Your task to perform on an android device: Open a new Chrome window Image 0: 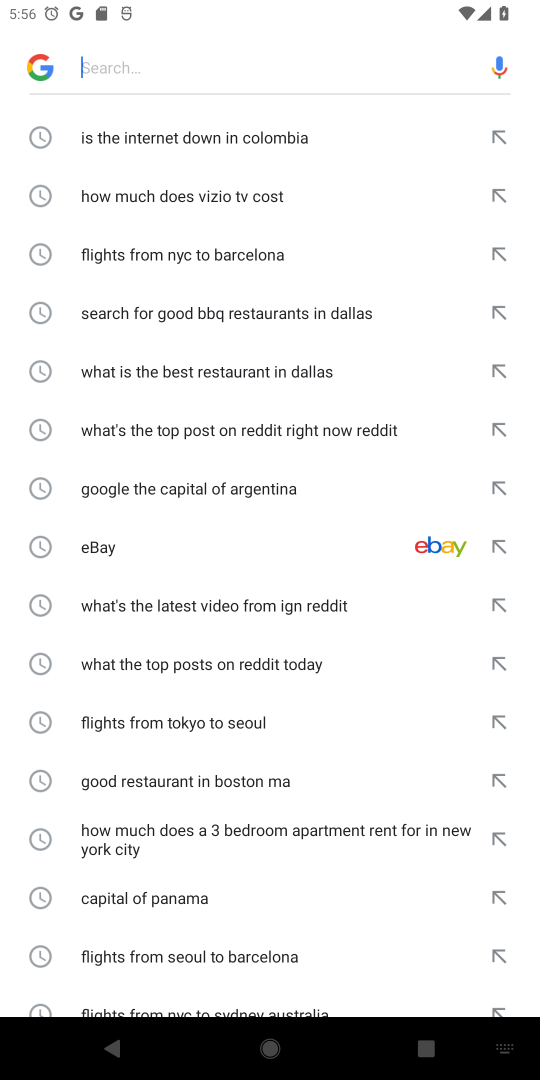
Step 0: press home button
Your task to perform on an android device: Open a new Chrome window Image 1: 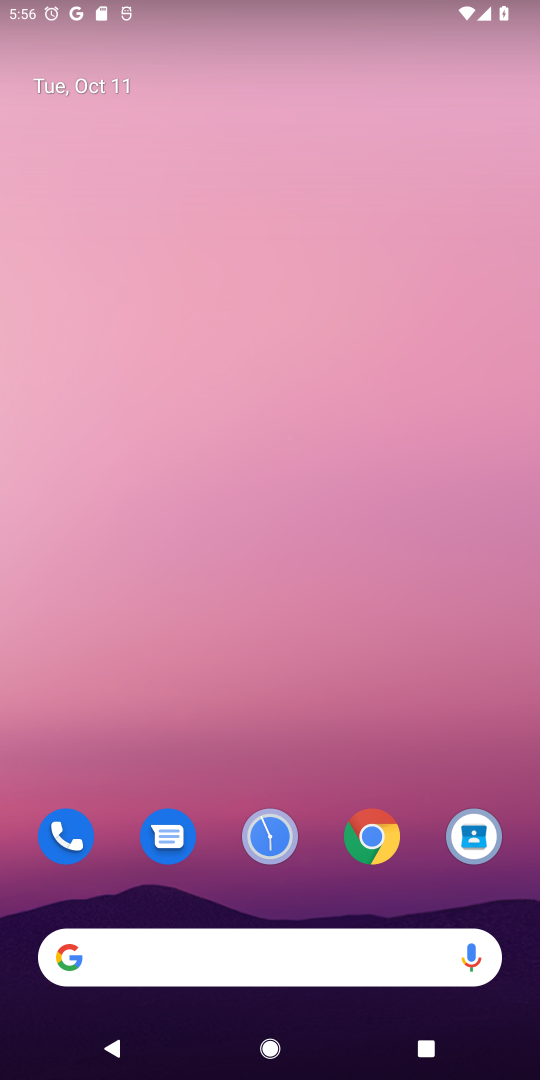
Step 1: click (358, 848)
Your task to perform on an android device: Open a new Chrome window Image 2: 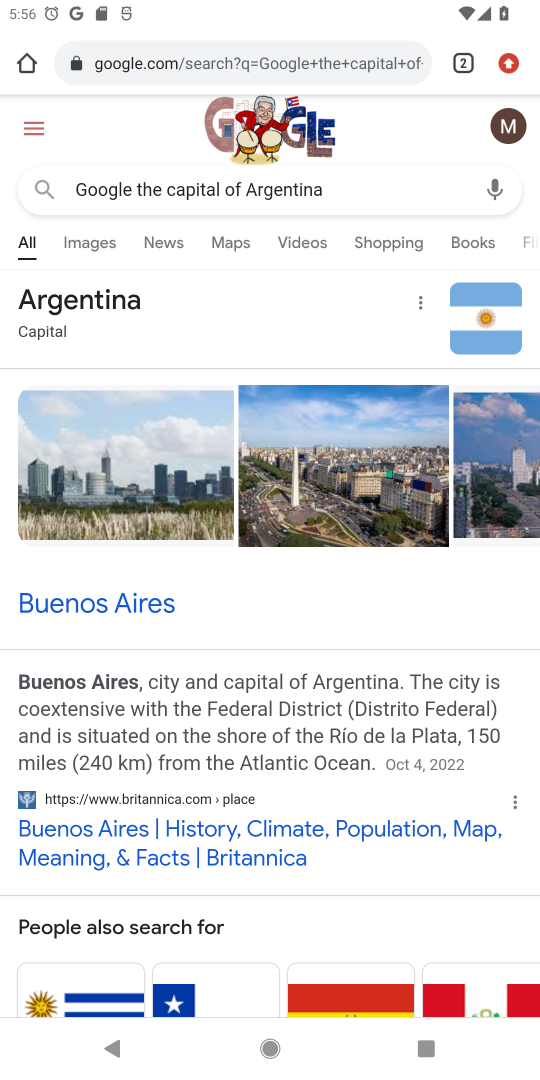
Step 2: click (465, 63)
Your task to perform on an android device: Open a new Chrome window Image 3: 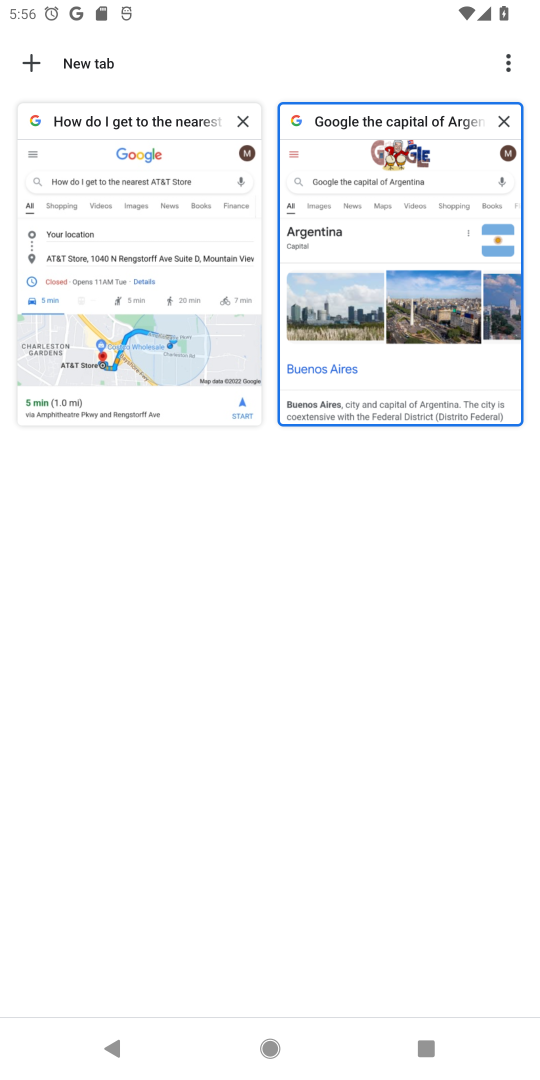
Step 3: click (33, 62)
Your task to perform on an android device: Open a new Chrome window Image 4: 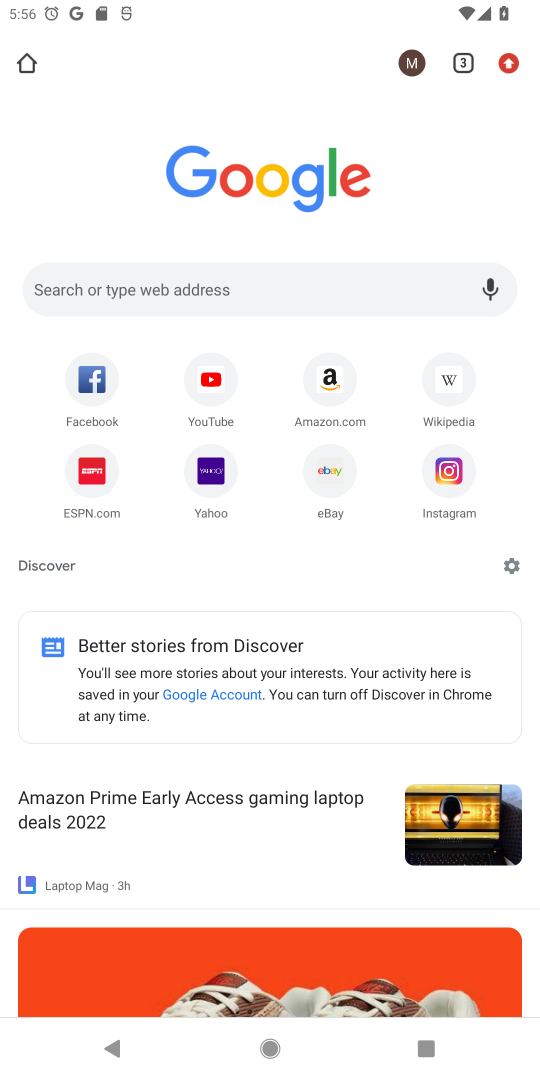
Step 4: task complete